Your task to perform on an android device: Open Amazon Image 0: 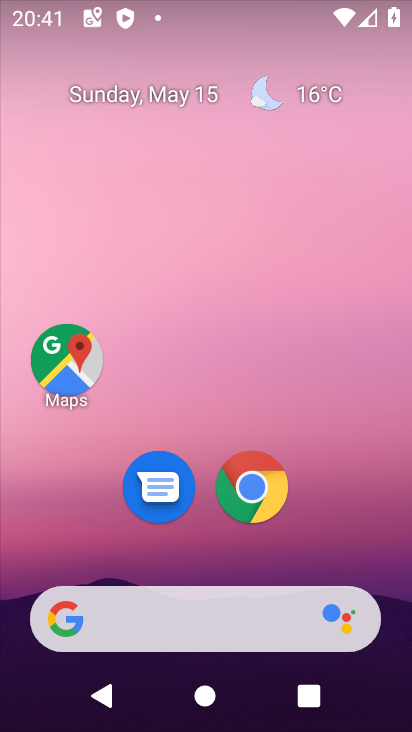
Step 0: click (245, 483)
Your task to perform on an android device: Open Amazon Image 1: 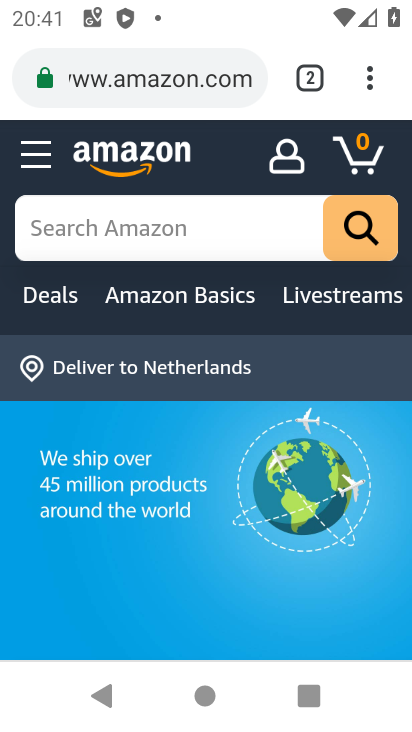
Step 1: click (368, 80)
Your task to perform on an android device: Open Amazon Image 2: 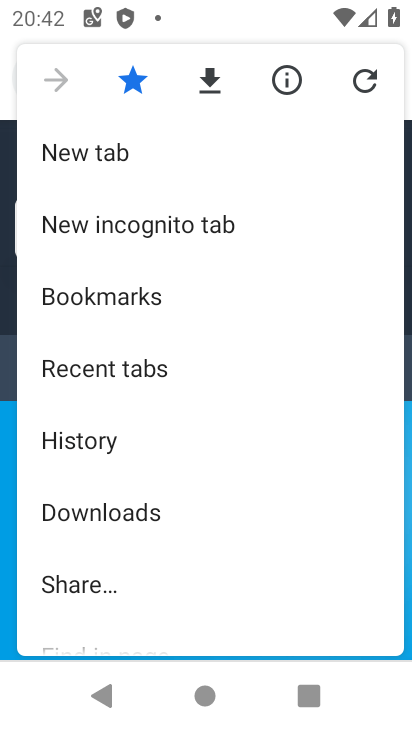
Step 2: click (93, 149)
Your task to perform on an android device: Open Amazon Image 3: 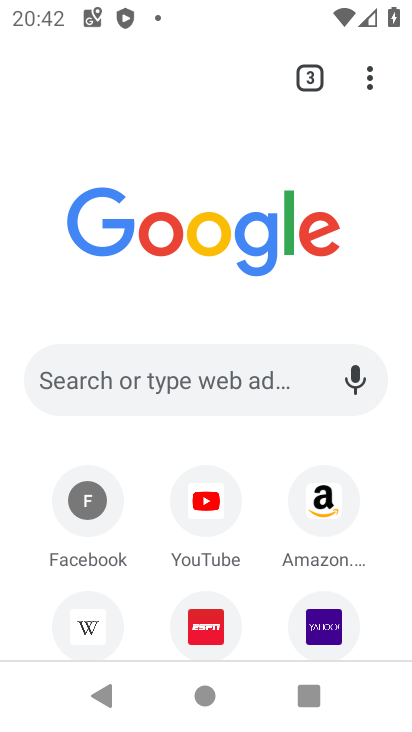
Step 3: click (314, 498)
Your task to perform on an android device: Open Amazon Image 4: 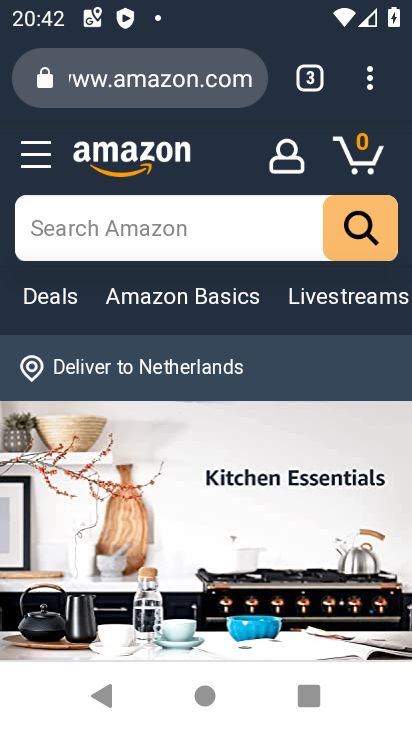
Step 4: task complete